Your task to perform on an android device: delete browsing data in the chrome app Image 0: 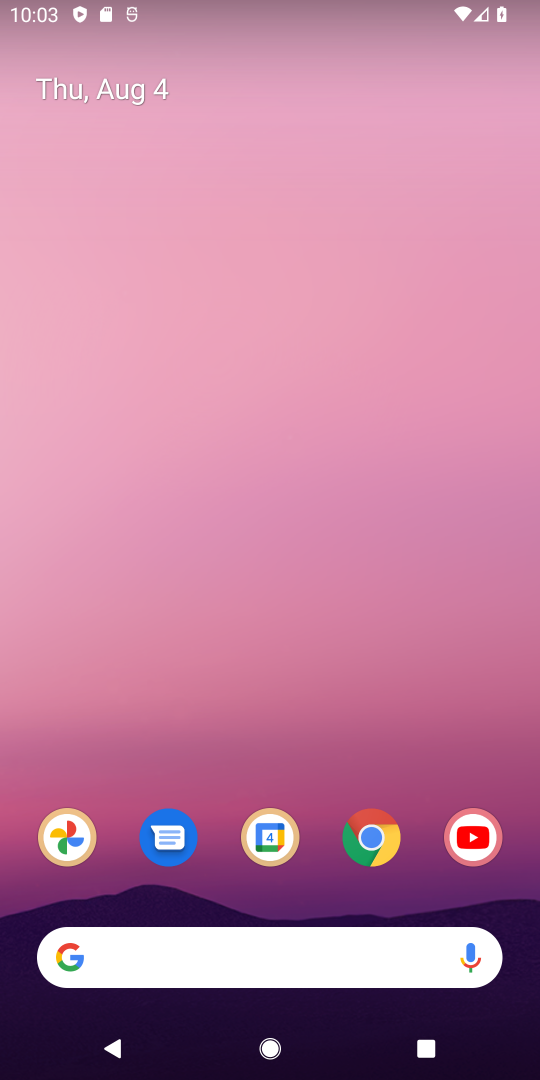
Step 0: press home button
Your task to perform on an android device: delete browsing data in the chrome app Image 1: 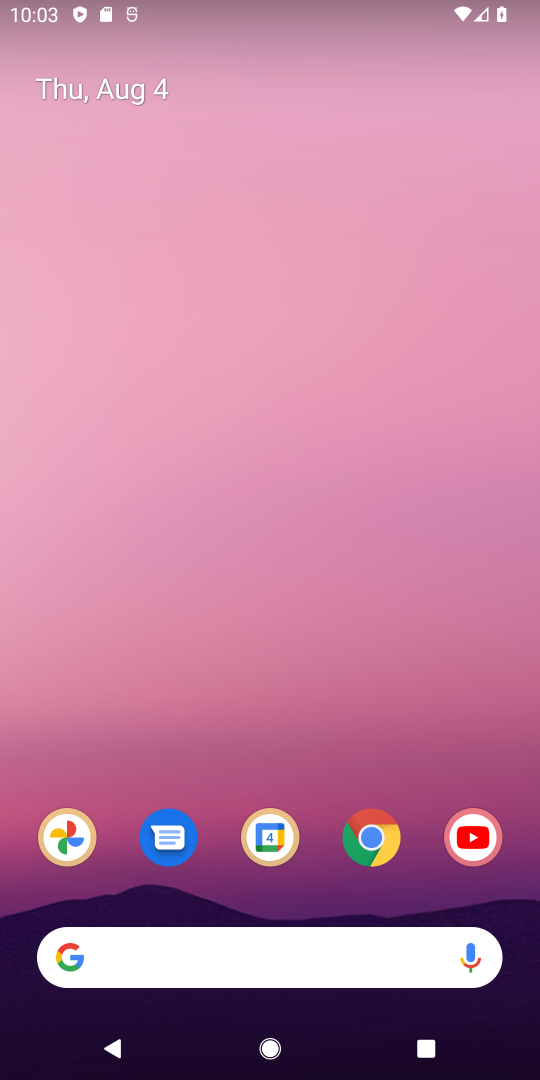
Step 1: drag from (322, 892) to (294, 274)
Your task to perform on an android device: delete browsing data in the chrome app Image 2: 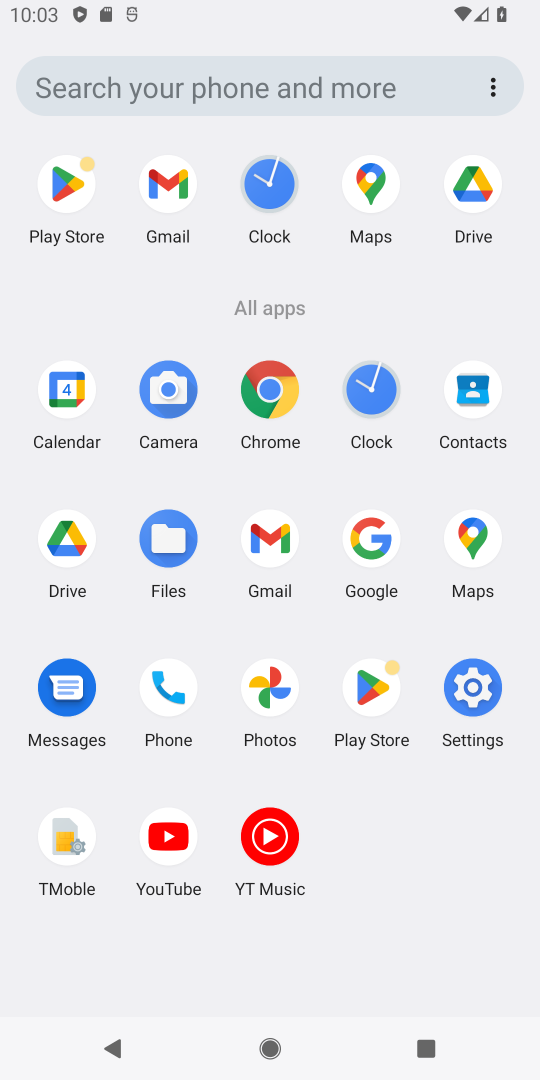
Step 2: click (269, 381)
Your task to perform on an android device: delete browsing data in the chrome app Image 3: 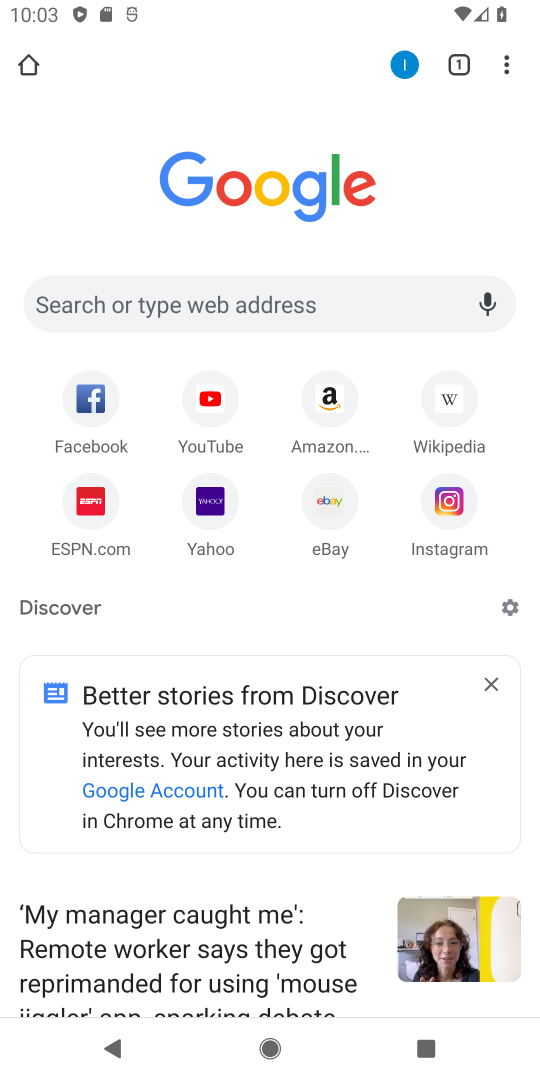
Step 3: click (502, 65)
Your task to perform on an android device: delete browsing data in the chrome app Image 4: 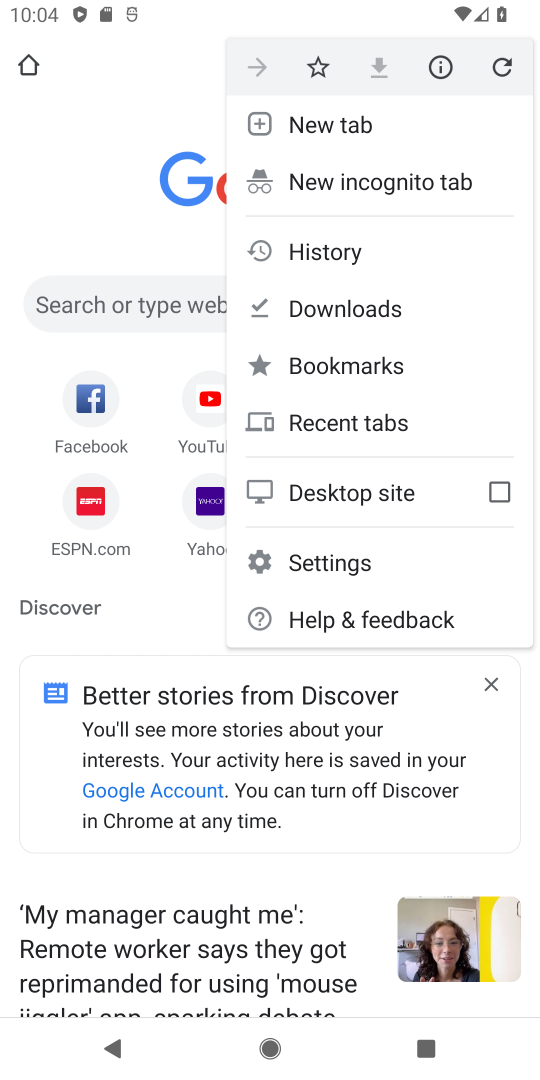
Step 4: click (355, 251)
Your task to perform on an android device: delete browsing data in the chrome app Image 5: 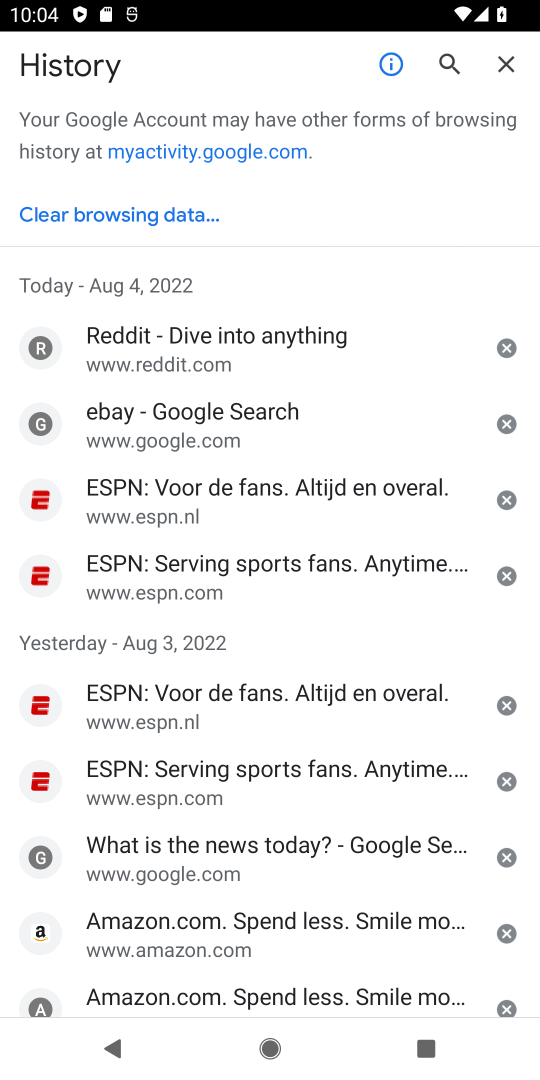
Step 5: click (82, 210)
Your task to perform on an android device: delete browsing data in the chrome app Image 6: 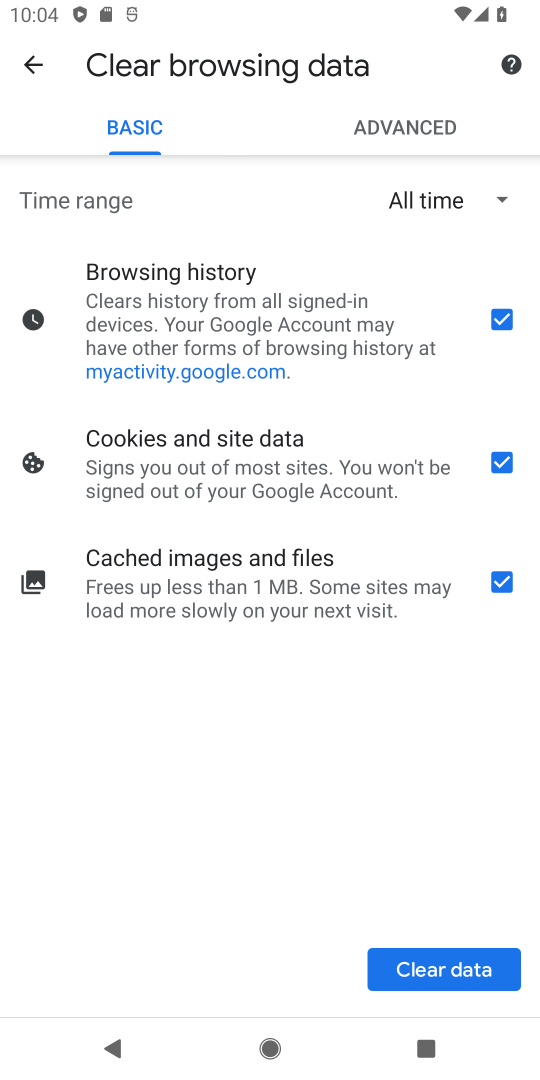
Step 6: click (498, 456)
Your task to perform on an android device: delete browsing data in the chrome app Image 7: 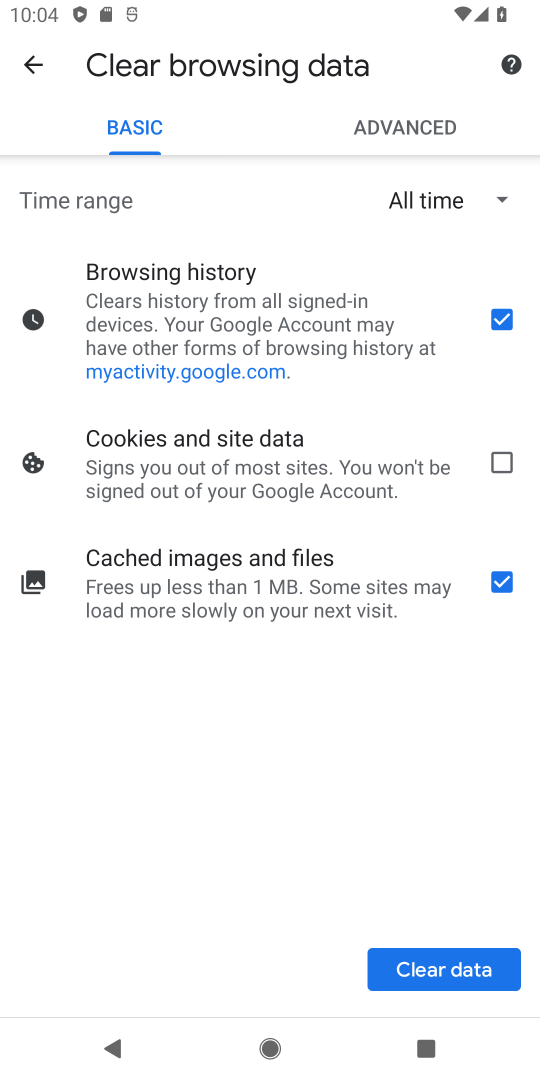
Step 7: click (500, 577)
Your task to perform on an android device: delete browsing data in the chrome app Image 8: 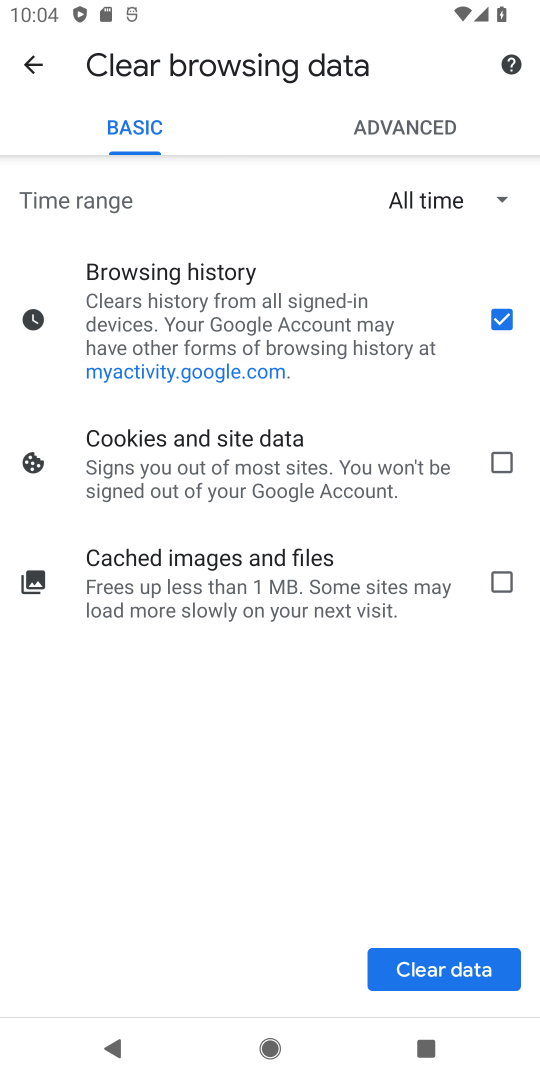
Step 8: click (450, 959)
Your task to perform on an android device: delete browsing data in the chrome app Image 9: 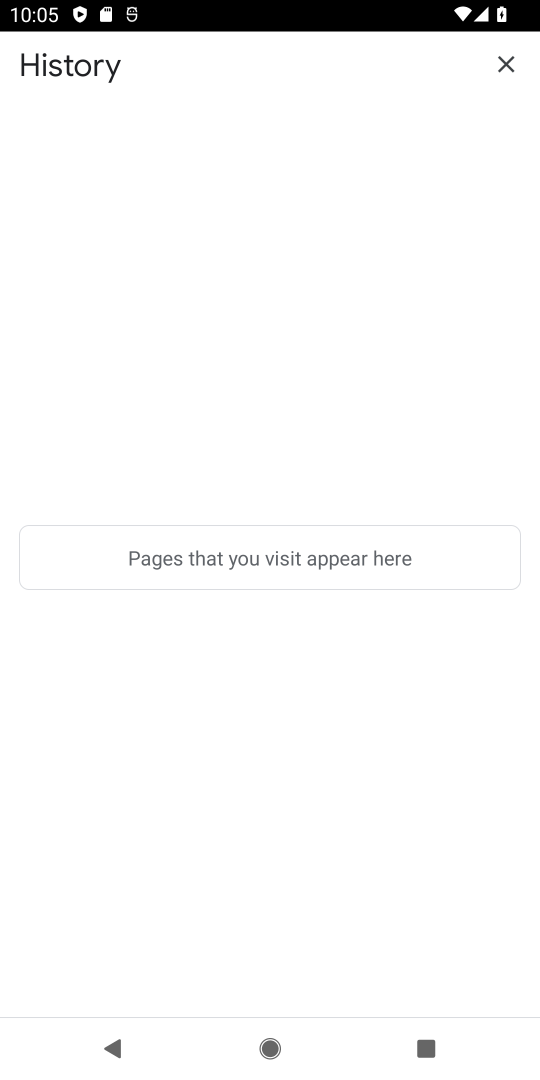
Step 9: task complete